Your task to perform on an android device: move a message to another label in the gmail app Image 0: 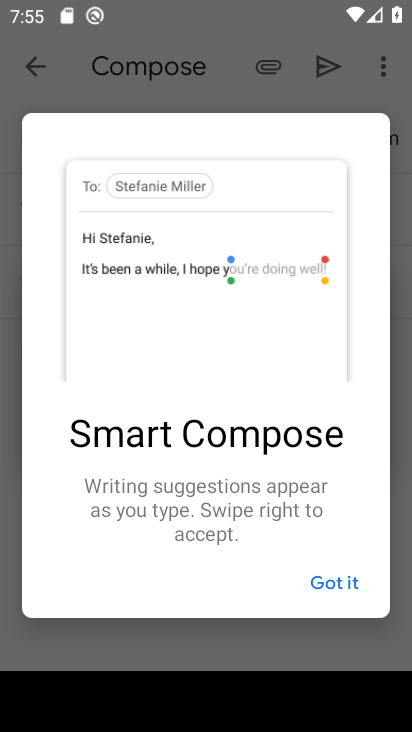
Step 0: press home button
Your task to perform on an android device: move a message to another label in the gmail app Image 1: 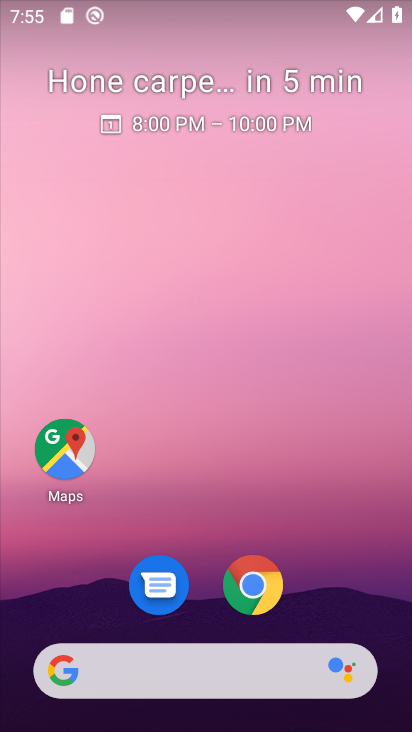
Step 1: drag from (233, 448) to (231, 29)
Your task to perform on an android device: move a message to another label in the gmail app Image 2: 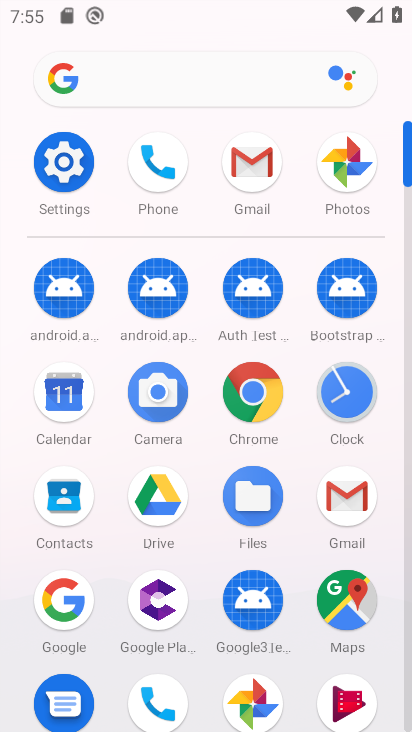
Step 2: click (247, 168)
Your task to perform on an android device: move a message to another label in the gmail app Image 3: 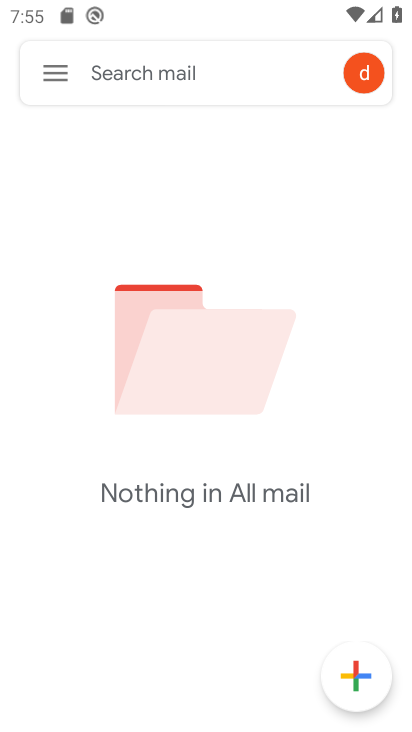
Step 3: task complete